Your task to perform on an android device: turn on javascript in the chrome app Image 0: 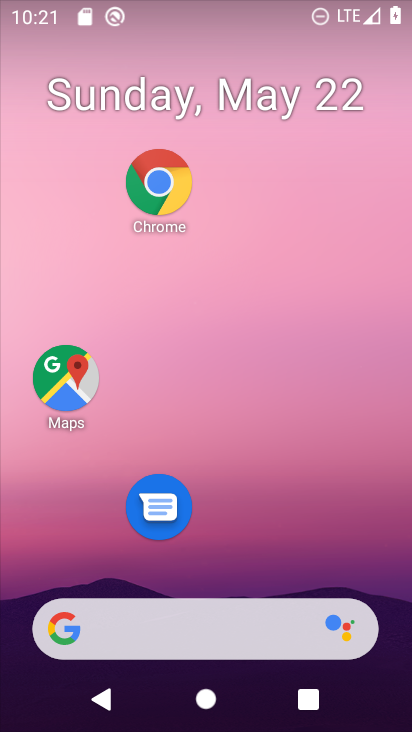
Step 0: click (163, 186)
Your task to perform on an android device: turn on javascript in the chrome app Image 1: 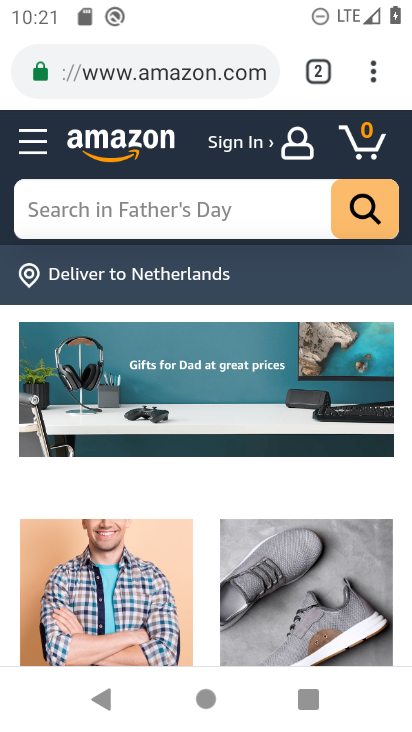
Step 1: click (375, 73)
Your task to perform on an android device: turn on javascript in the chrome app Image 2: 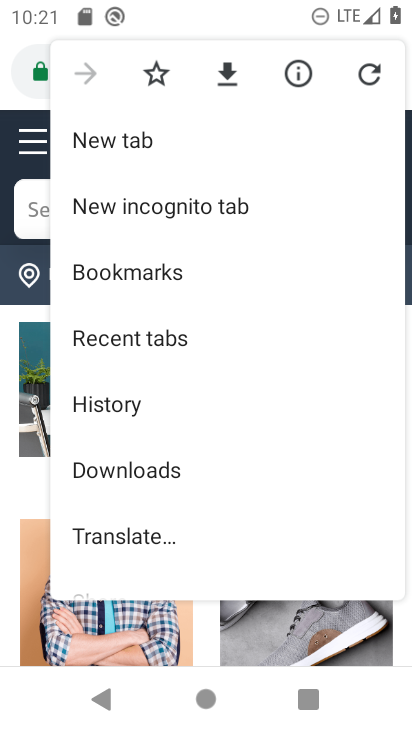
Step 2: drag from (250, 500) to (110, 51)
Your task to perform on an android device: turn on javascript in the chrome app Image 3: 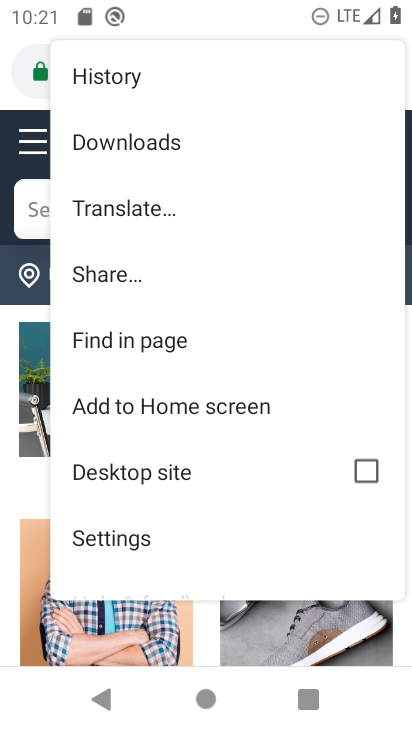
Step 3: click (133, 539)
Your task to perform on an android device: turn on javascript in the chrome app Image 4: 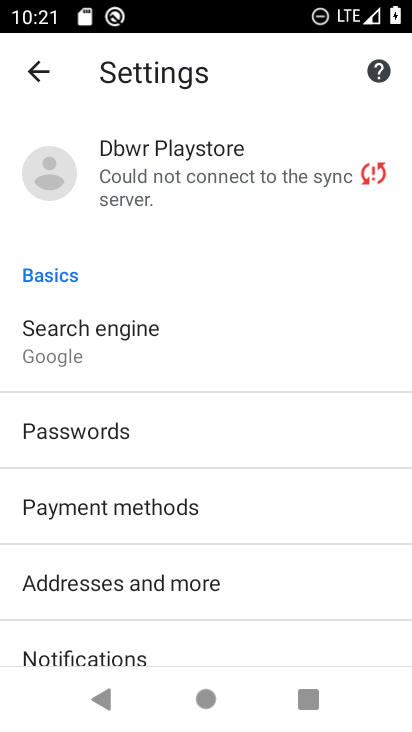
Step 4: drag from (176, 634) to (97, 24)
Your task to perform on an android device: turn on javascript in the chrome app Image 5: 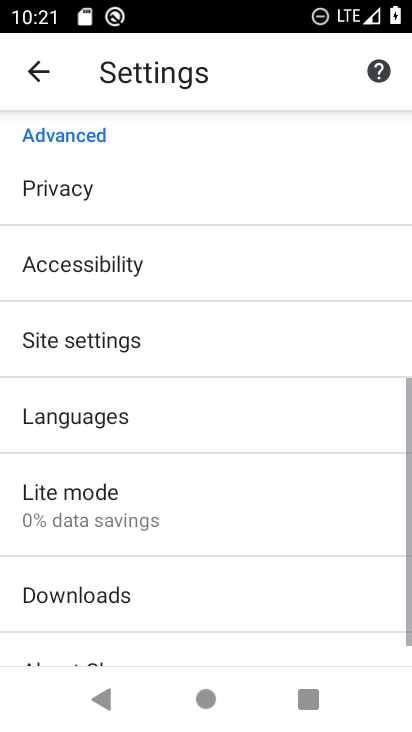
Step 5: click (155, 335)
Your task to perform on an android device: turn on javascript in the chrome app Image 6: 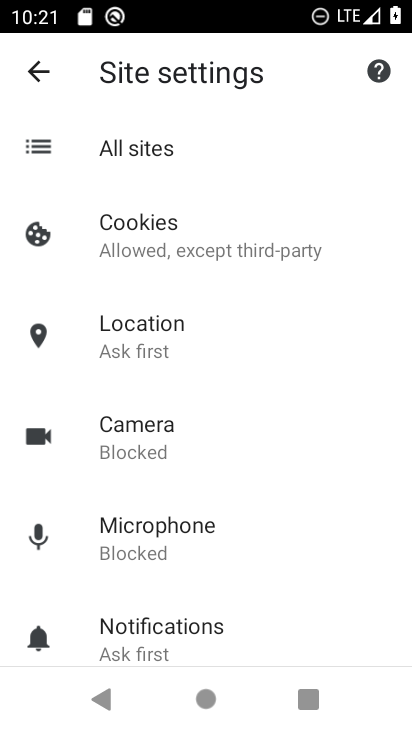
Step 6: drag from (220, 568) to (213, 79)
Your task to perform on an android device: turn on javascript in the chrome app Image 7: 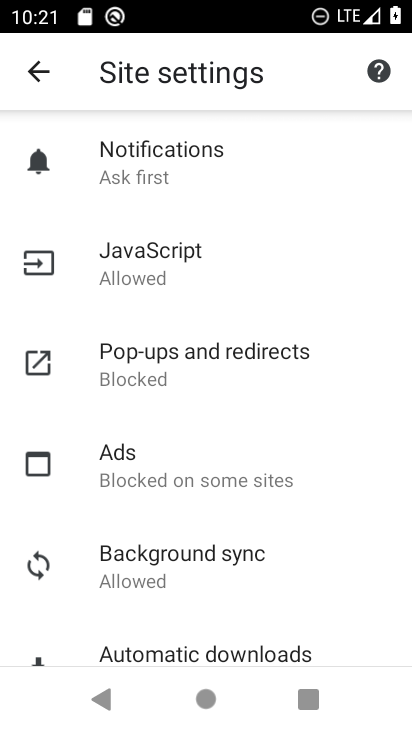
Step 7: click (214, 260)
Your task to perform on an android device: turn on javascript in the chrome app Image 8: 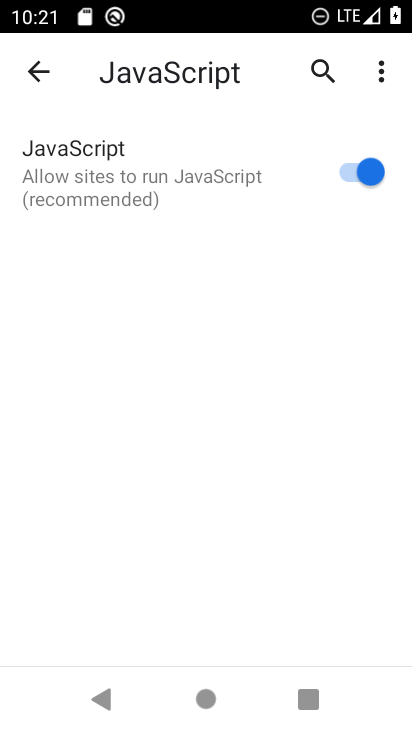
Step 8: task complete